Your task to perform on an android device: Go to settings Image 0: 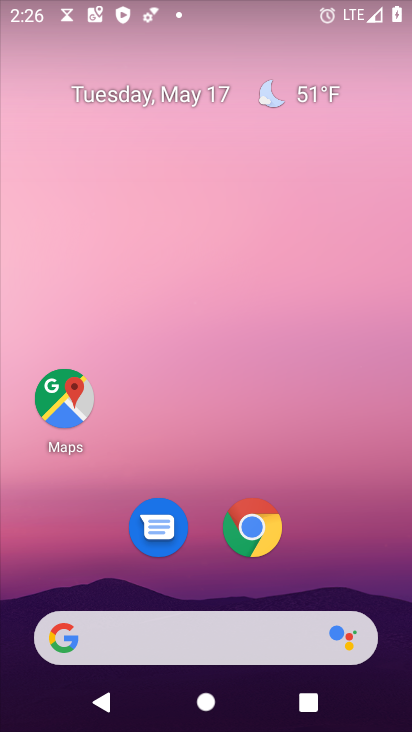
Step 0: drag from (315, 576) to (174, 38)
Your task to perform on an android device: Go to settings Image 1: 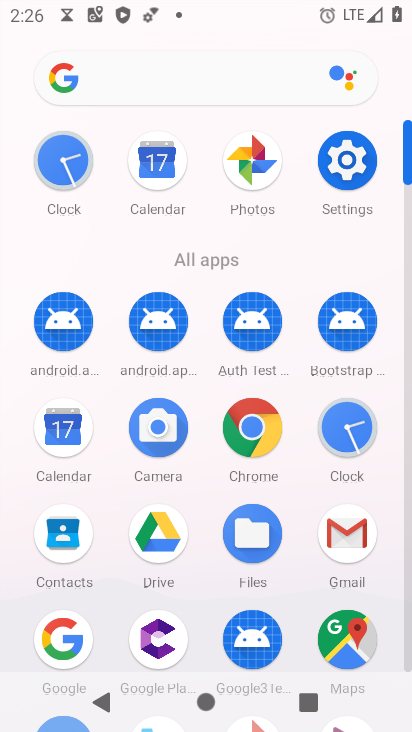
Step 1: click (349, 160)
Your task to perform on an android device: Go to settings Image 2: 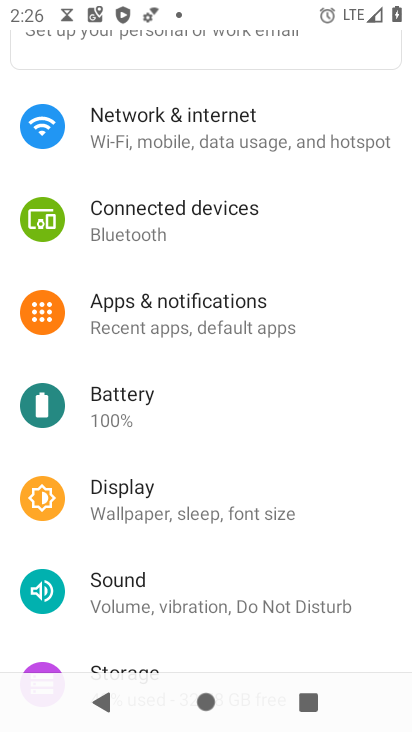
Step 2: task complete